Your task to perform on an android device: set an alarm Image 0: 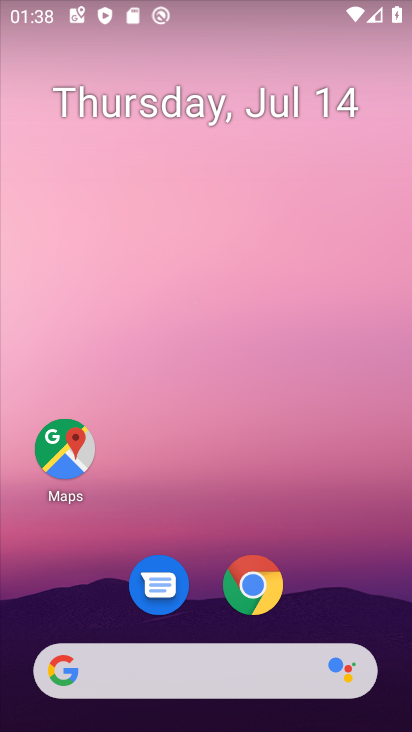
Step 0: drag from (310, 584) to (341, 17)
Your task to perform on an android device: set an alarm Image 1: 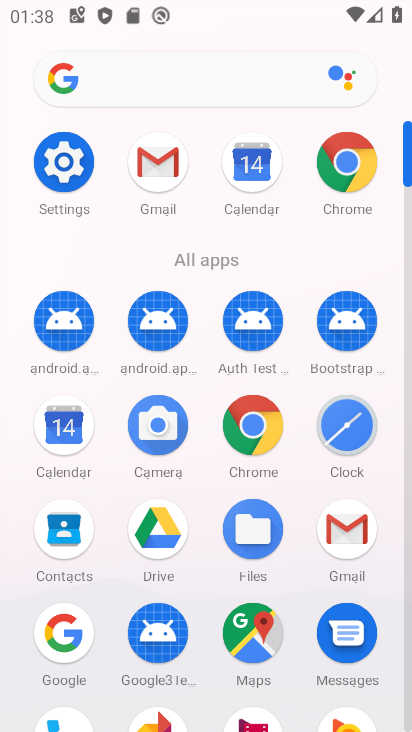
Step 1: click (352, 429)
Your task to perform on an android device: set an alarm Image 2: 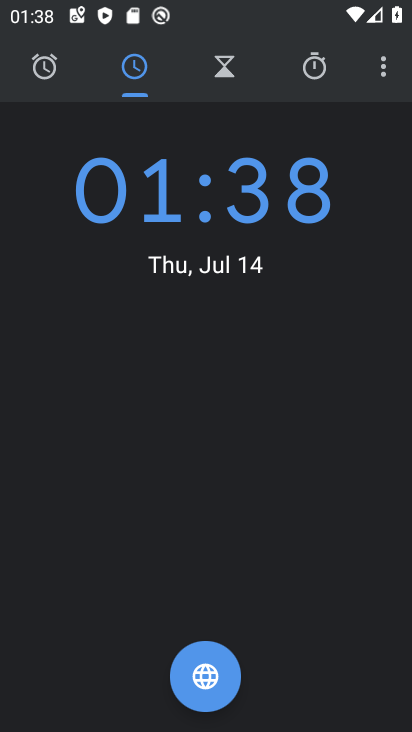
Step 2: click (50, 68)
Your task to perform on an android device: set an alarm Image 3: 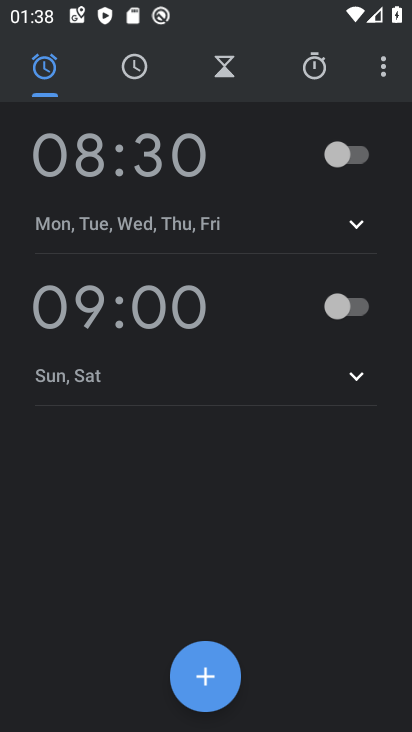
Step 3: click (209, 688)
Your task to perform on an android device: set an alarm Image 4: 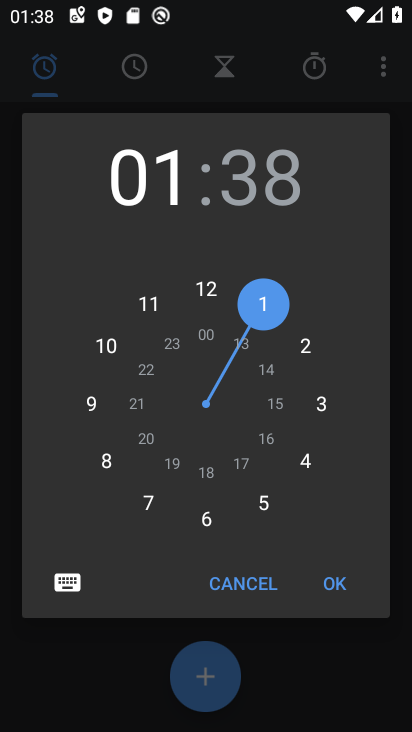
Step 4: click (261, 189)
Your task to perform on an android device: set an alarm Image 5: 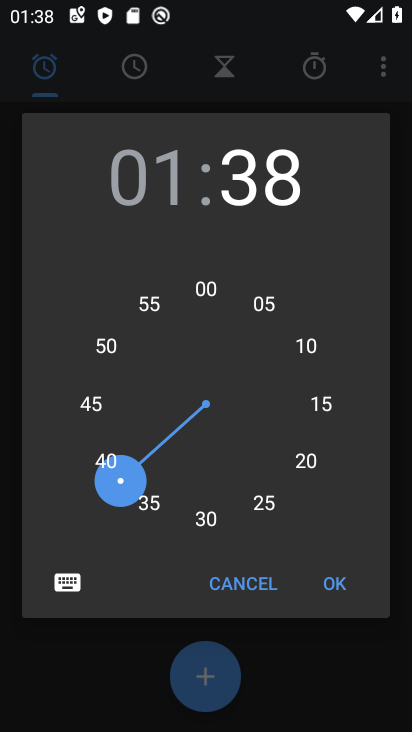
Step 5: click (205, 294)
Your task to perform on an android device: set an alarm Image 6: 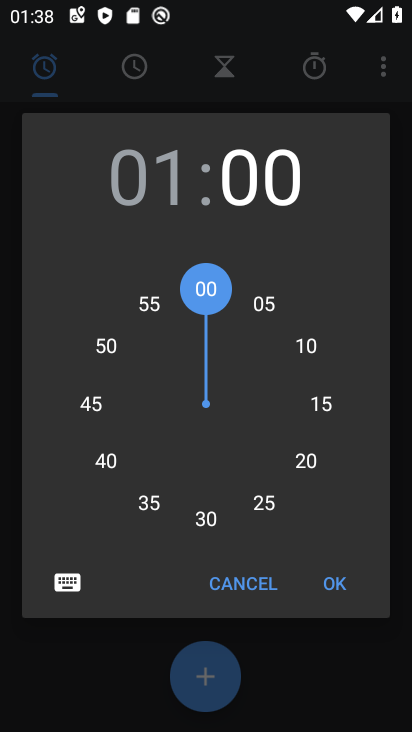
Step 6: click (336, 592)
Your task to perform on an android device: set an alarm Image 7: 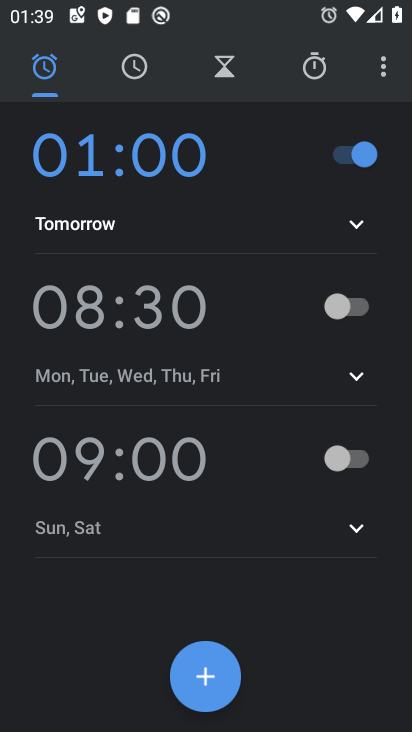
Step 7: click (354, 227)
Your task to perform on an android device: set an alarm Image 8: 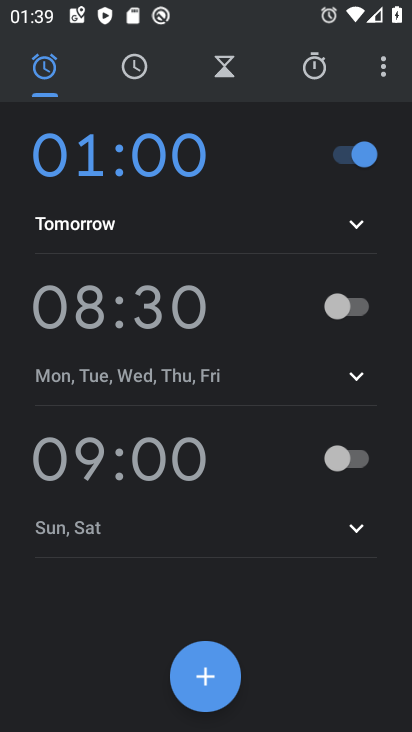
Step 8: click (354, 224)
Your task to perform on an android device: set an alarm Image 9: 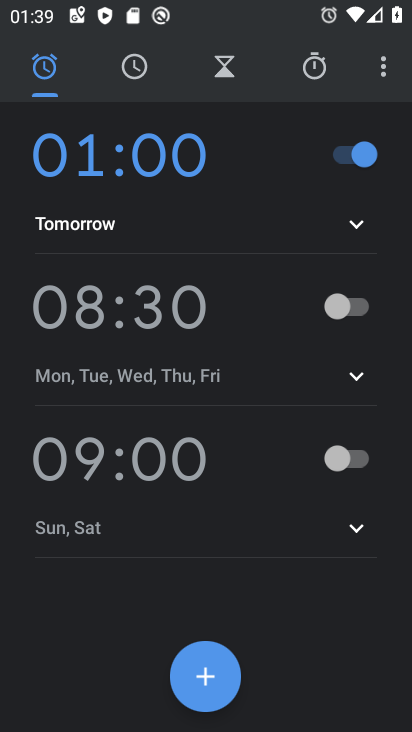
Step 9: task complete